Your task to perform on an android device: change timer sound Image 0: 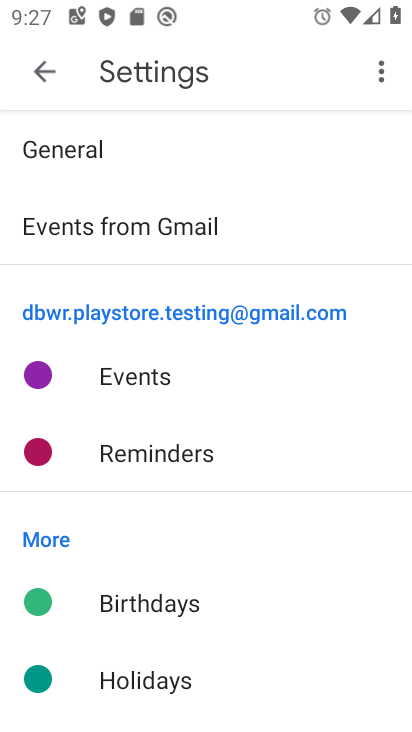
Step 0: press home button
Your task to perform on an android device: change timer sound Image 1: 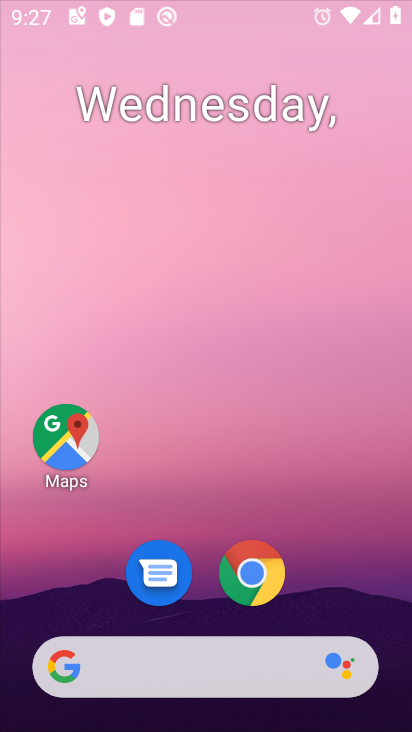
Step 1: drag from (232, 661) to (238, 224)
Your task to perform on an android device: change timer sound Image 2: 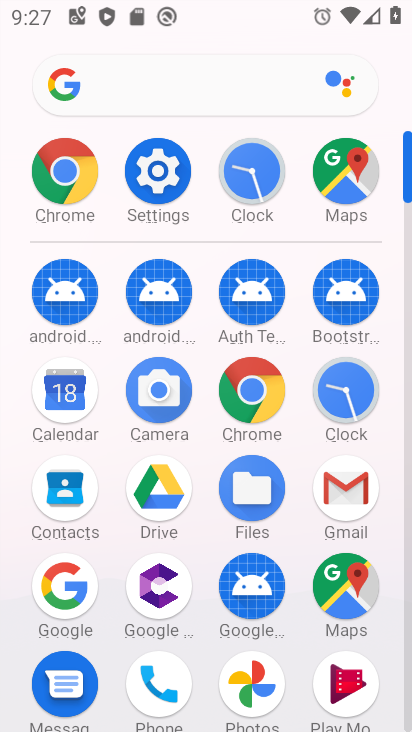
Step 2: click (350, 406)
Your task to perform on an android device: change timer sound Image 3: 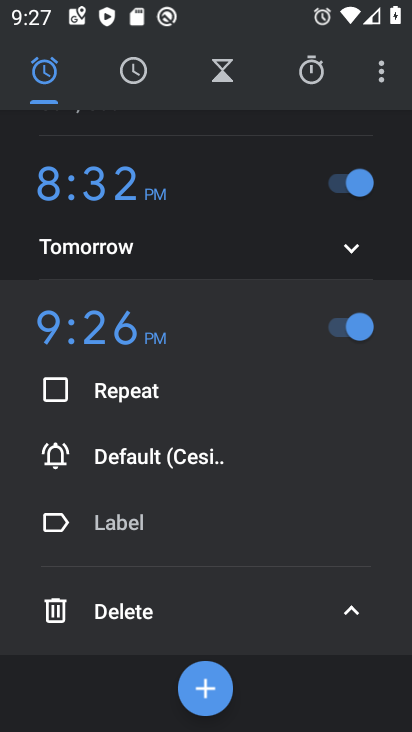
Step 3: click (375, 81)
Your task to perform on an android device: change timer sound Image 4: 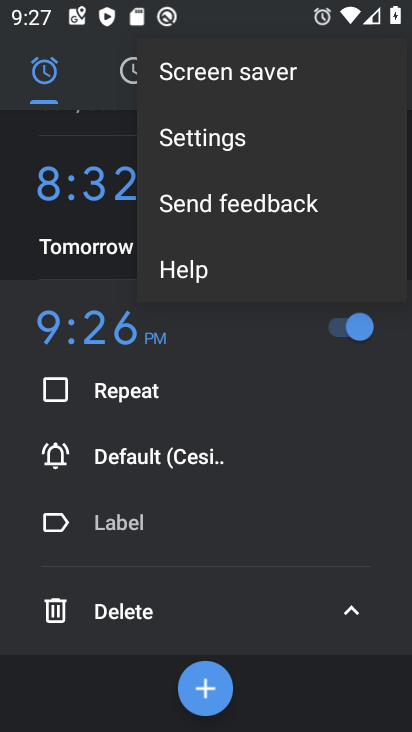
Step 4: click (186, 142)
Your task to perform on an android device: change timer sound Image 5: 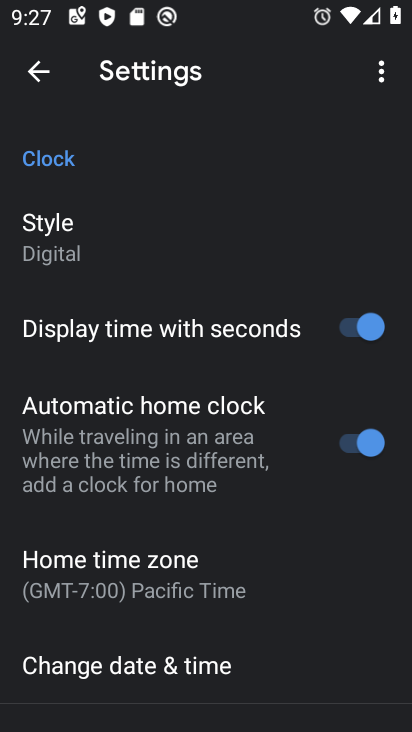
Step 5: drag from (125, 536) to (128, 175)
Your task to perform on an android device: change timer sound Image 6: 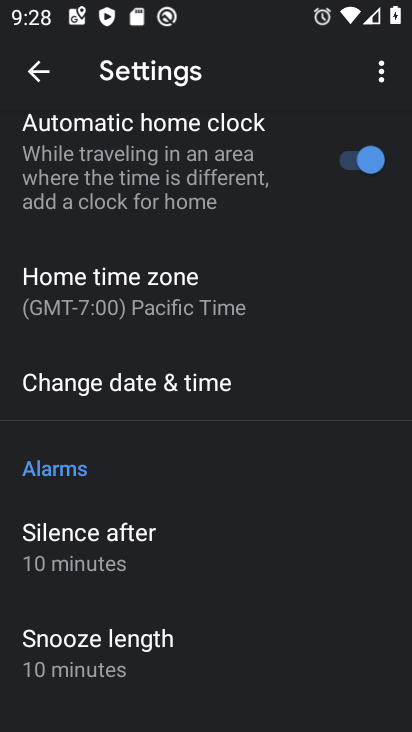
Step 6: drag from (216, 536) to (203, 253)
Your task to perform on an android device: change timer sound Image 7: 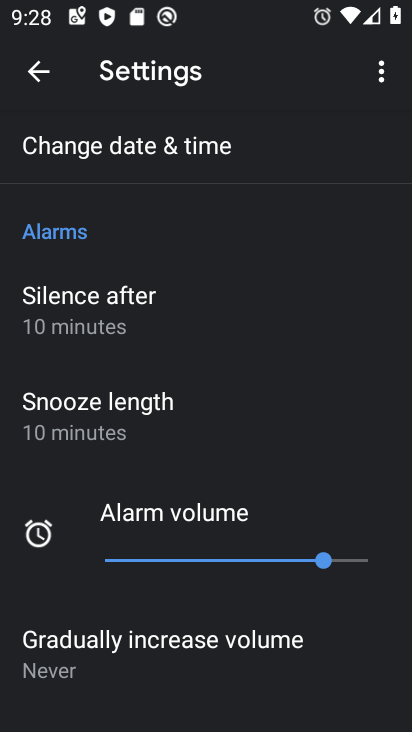
Step 7: drag from (230, 516) to (259, 159)
Your task to perform on an android device: change timer sound Image 8: 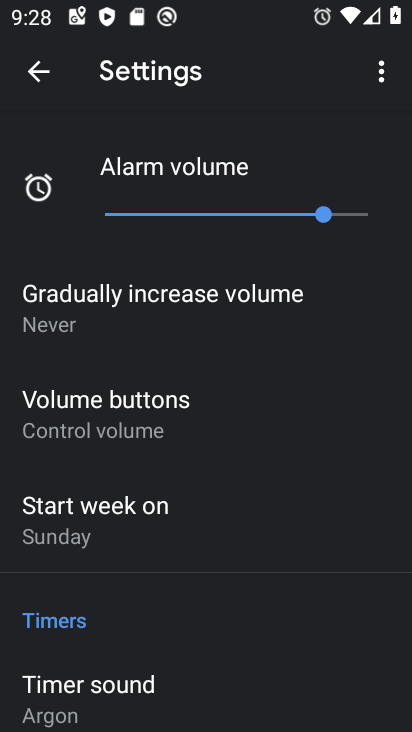
Step 8: click (171, 698)
Your task to perform on an android device: change timer sound Image 9: 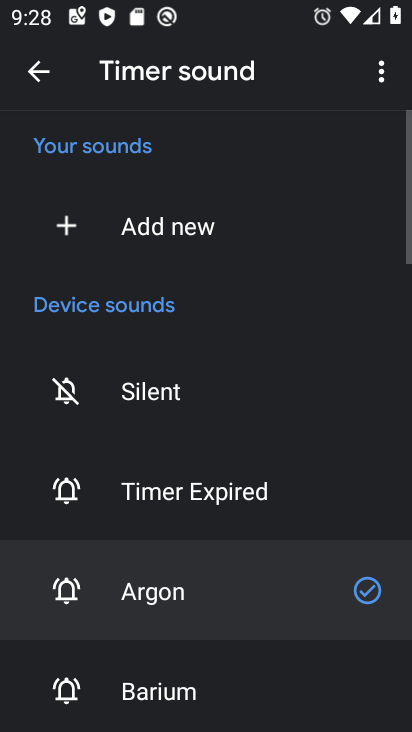
Step 9: click (202, 504)
Your task to perform on an android device: change timer sound Image 10: 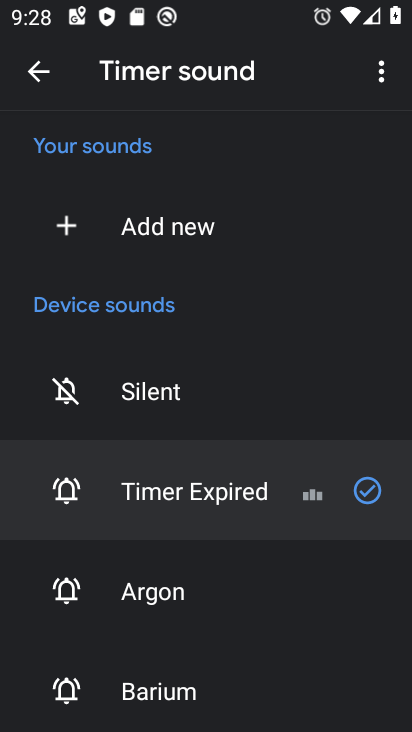
Step 10: task complete